Your task to perform on an android device: Set the phone to "Do not disturb". Image 0: 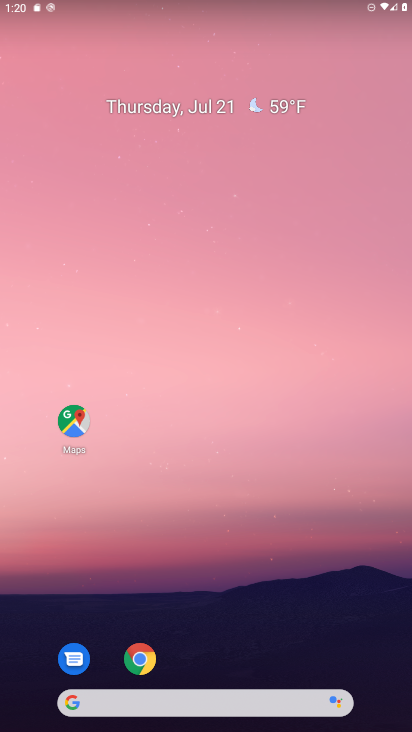
Step 0: drag from (213, 15) to (223, 369)
Your task to perform on an android device: Set the phone to "Do not disturb". Image 1: 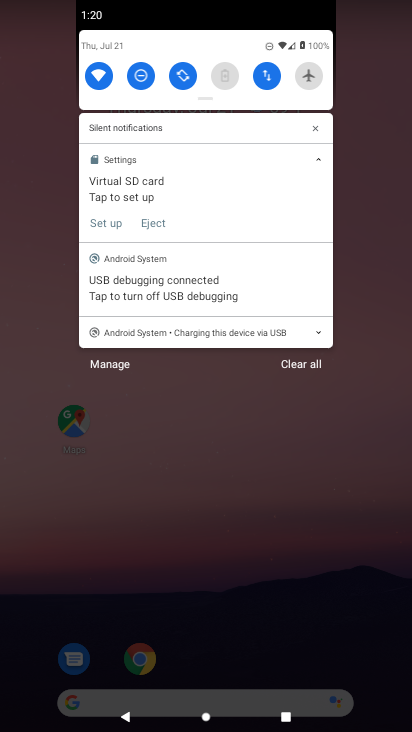
Step 1: task complete